Your task to perform on an android device: Turn on the flashlight Image 0: 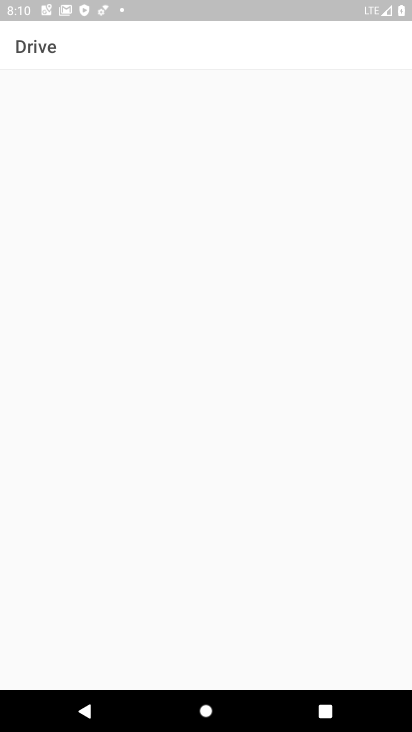
Step 0: press home button
Your task to perform on an android device: Turn on the flashlight Image 1: 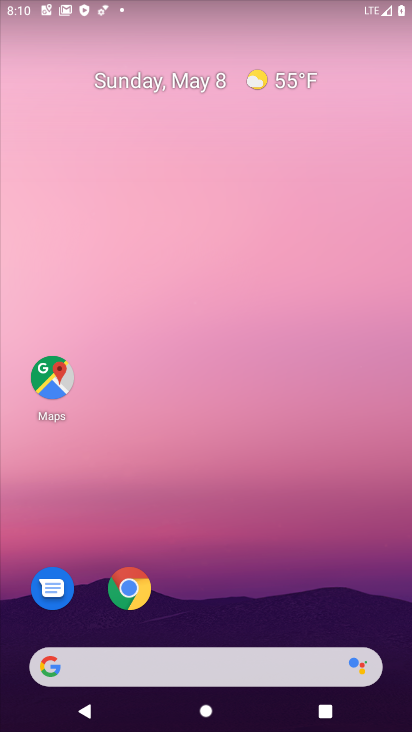
Step 1: drag from (321, 619) to (193, 46)
Your task to perform on an android device: Turn on the flashlight Image 2: 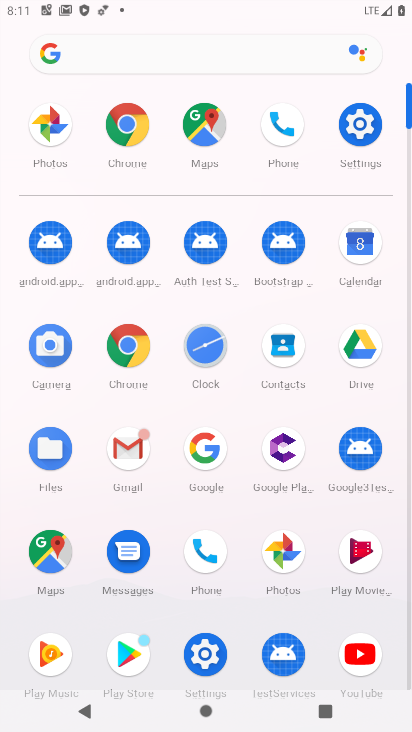
Step 2: click (350, 104)
Your task to perform on an android device: Turn on the flashlight Image 3: 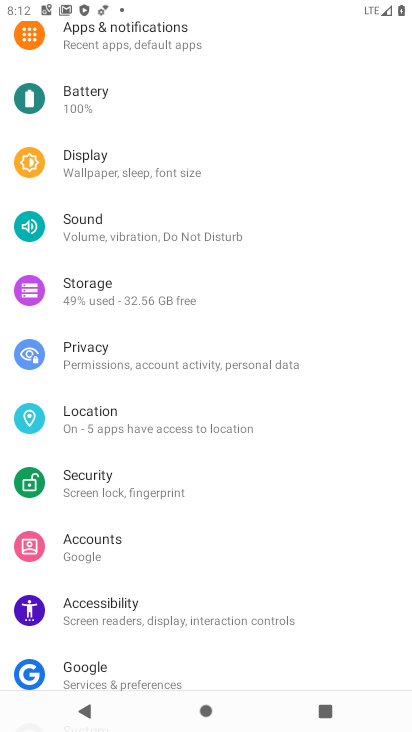
Step 3: task complete